Your task to perform on an android device: Do I have any events this weekend? Image 0: 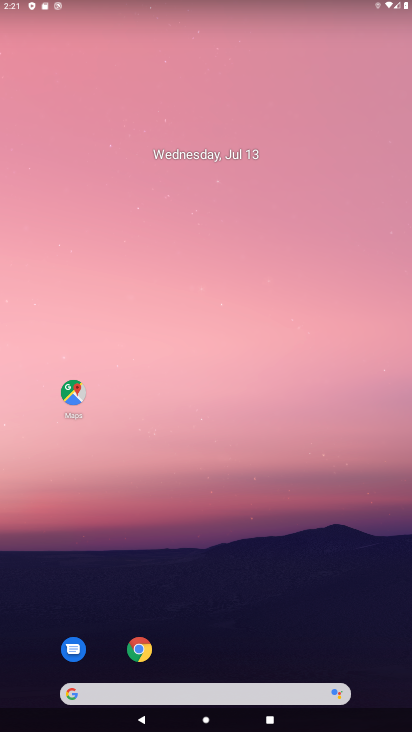
Step 0: drag from (267, 533) to (247, 95)
Your task to perform on an android device: Do I have any events this weekend? Image 1: 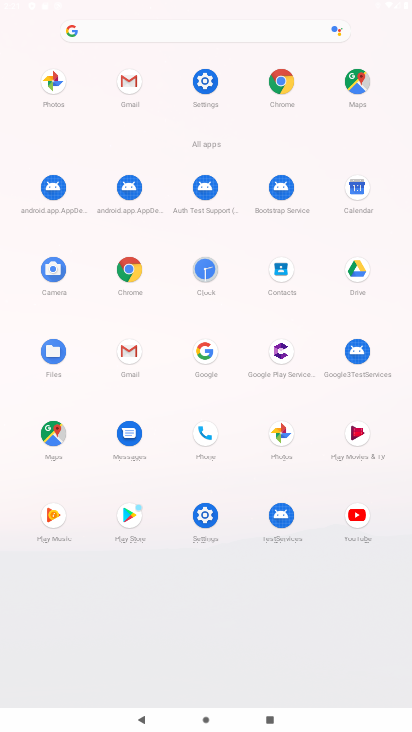
Step 1: click (364, 189)
Your task to perform on an android device: Do I have any events this weekend? Image 2: 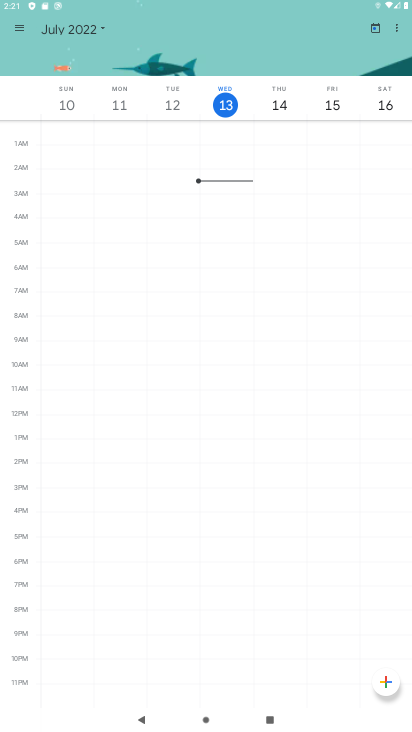
Step 2: task complete